Your task to perform on an android device: Open Youtube and go to the subscriptions tab Image 0: 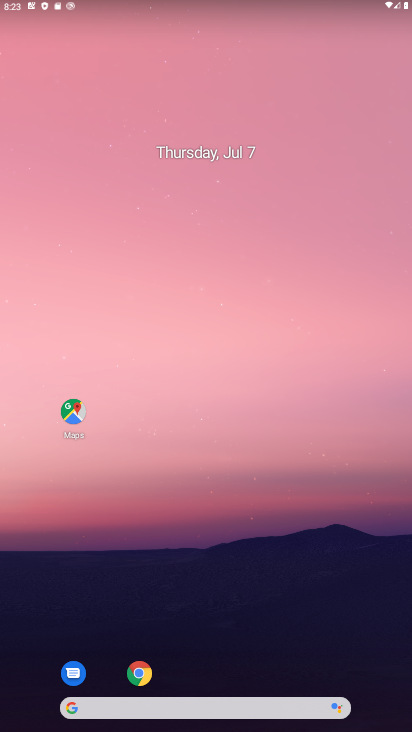
Step 0: press home button
Your task to perform on an android device: Open Youtube and go to the subscriptions tab Image 1: 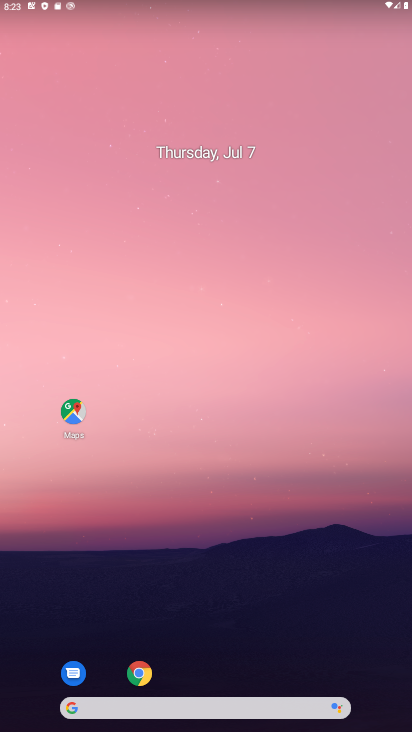
Step 1: drag from (306, 683) to (117, 48)
Your task to perform on an android device: Open Youtube and go to the subscriptions tab Image 2: 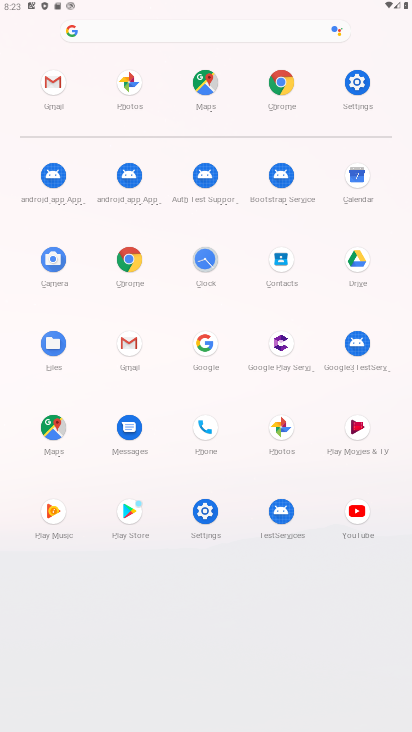
Step 2: click (350, 506)
Your task to perform on an android device: Open Youtube and go to the subscriptions tab Image 3: 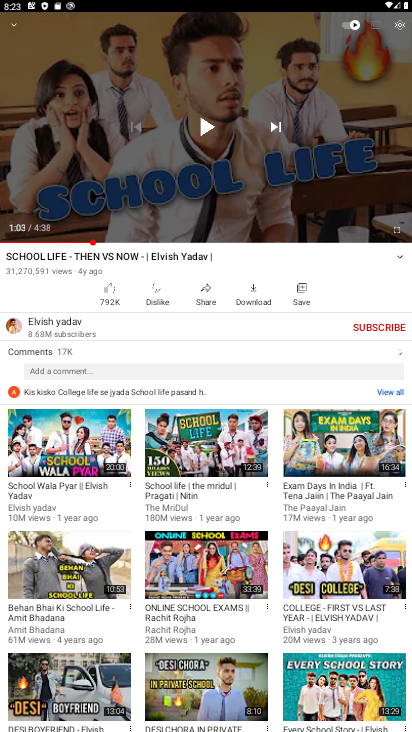
Step 3: press back button
Your task to perform on an android device: Open Youtube and go to the subscriptions tab Image 4: 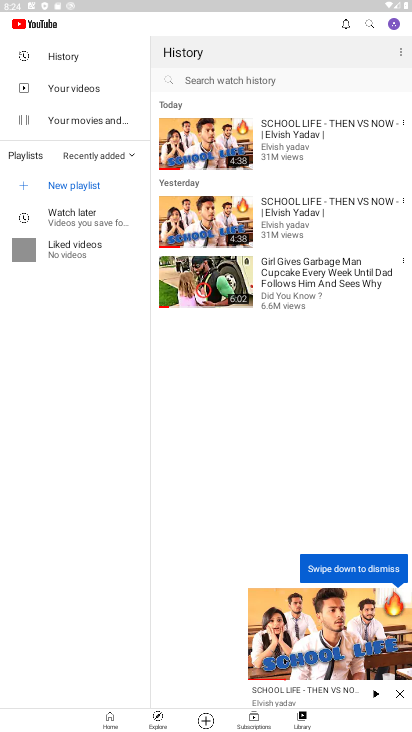
Step 4: click (255, 721)
Your task to perform on an android device: Open Youtube and go to the subscriptions tab Image 5: 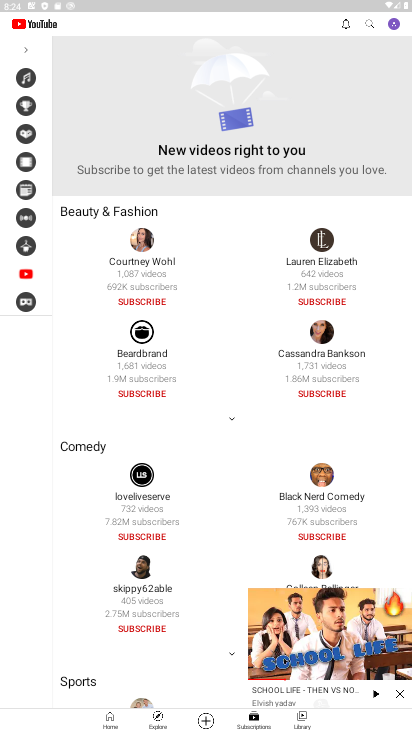
Step 5: task complete